Your task to perform on an android device: Show me popular games on the Play Store Image 0: 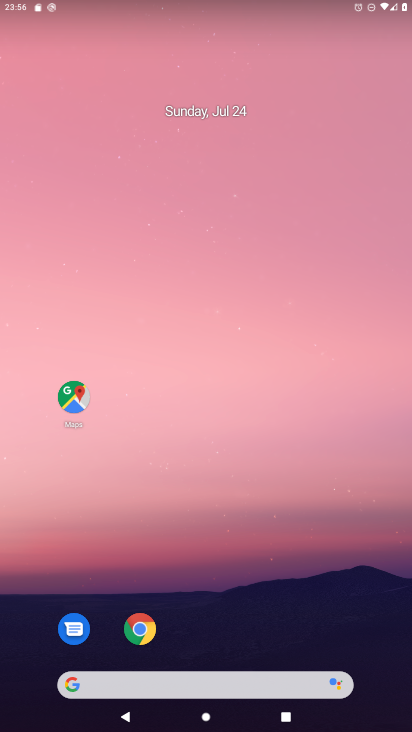
Step 0: drag from (178, 635) to (203, 149)
Your task to perform on an android device: Show me popular games on the Play Store Image 1: 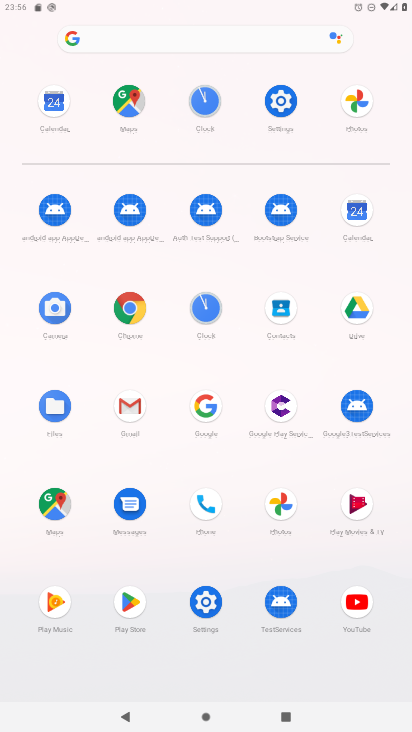
Step 1: drag from (209, 636) to (214, 408)
Your task to perform on an android device: Show me popular games on the Play Store Image 2: 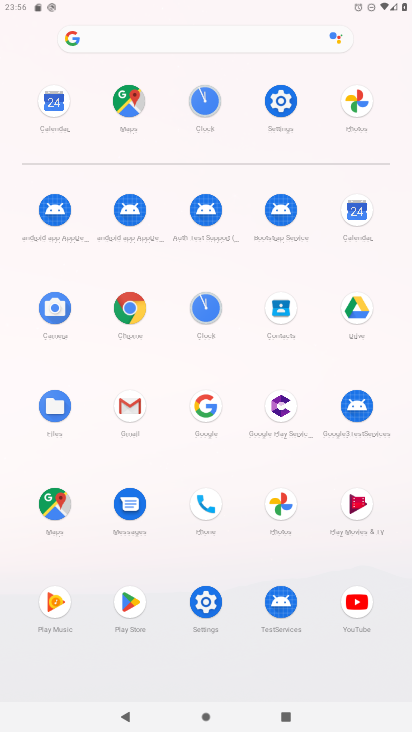
Step 2: click (121, 594)
Your task to perform on an android device: Show me popular games on the Play Store Image 3: 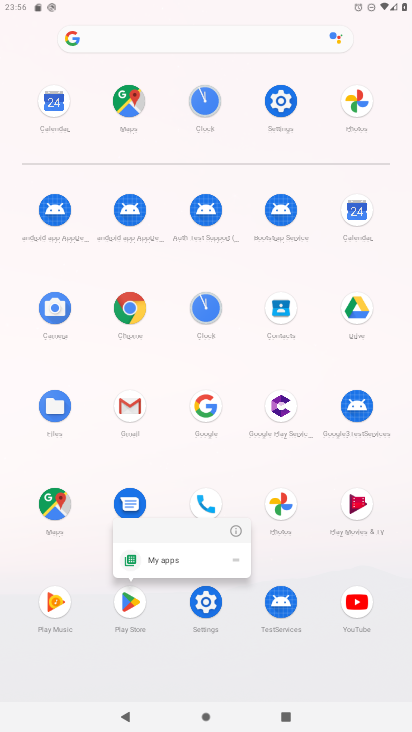
Step 3: click (227, 528)
Your task to perform on an android device: Show me popular games on the Play Store Image 4: 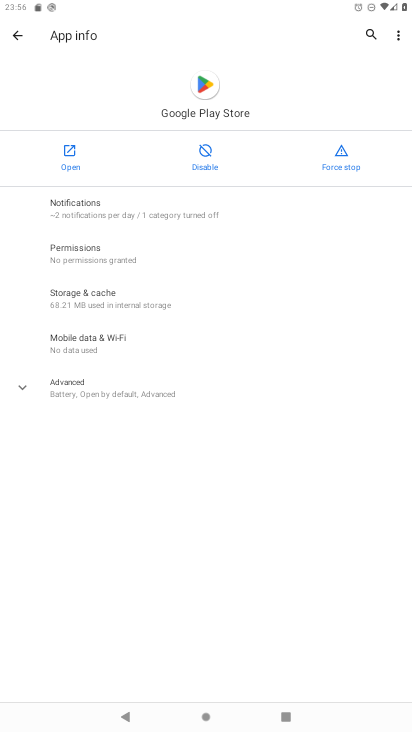
Step 4: click (65, 165)
Your task to perform on an android device: Show me popular games on the Play Store Image 5: 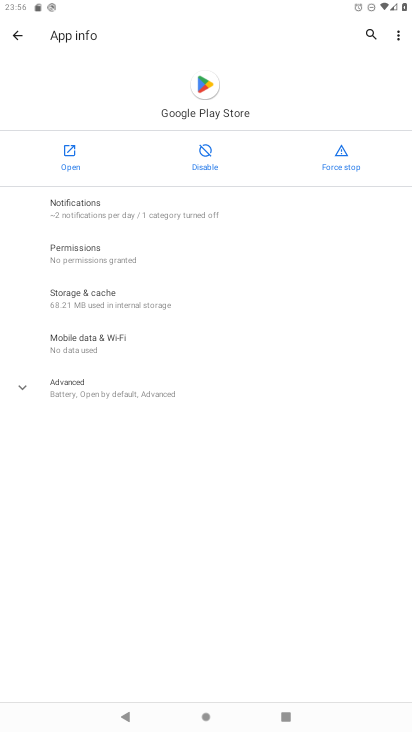
Step 5: click (65, 165)
Your task to perform on an android device: Show me popular games on the Play Store Image 6: 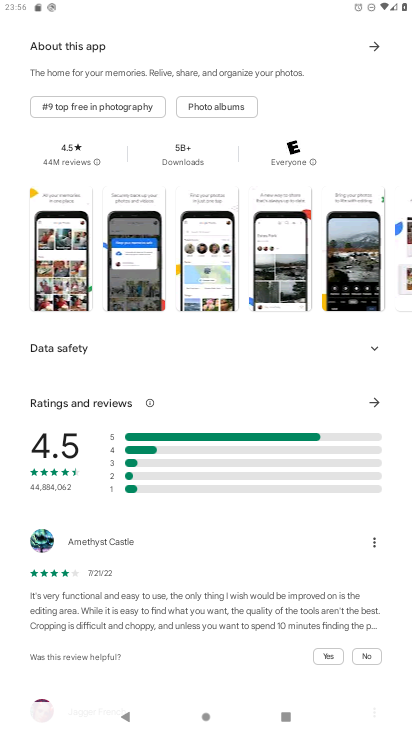
Step 6: drag from (220, 130) to (337, 724)
Your task to perform on an android device: Show me popular games on the Play Store Image 7: 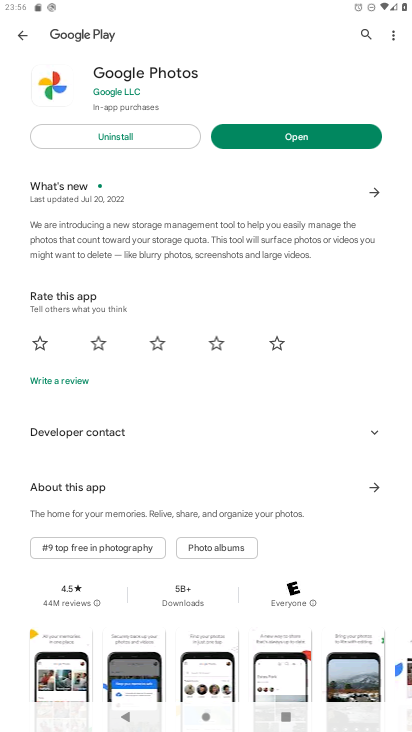
Step 7: click (21, 36)
Your task to perform on an android device: Show me popular games on the Play Store Image 8: 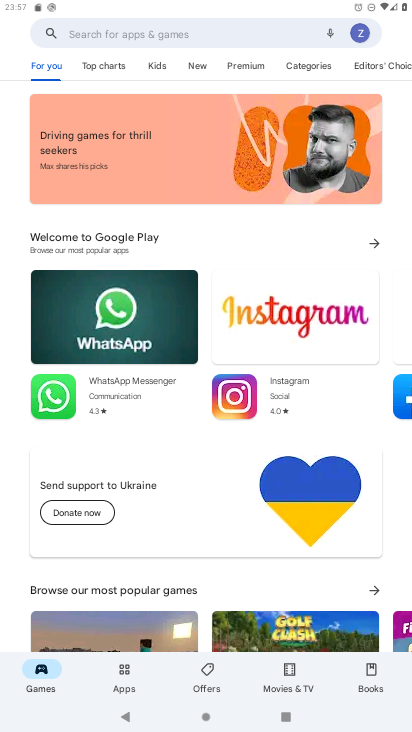
Step 8: click (121, 673)
Your task to perform on an android device: Show me popular games on the Play Store Image 9: 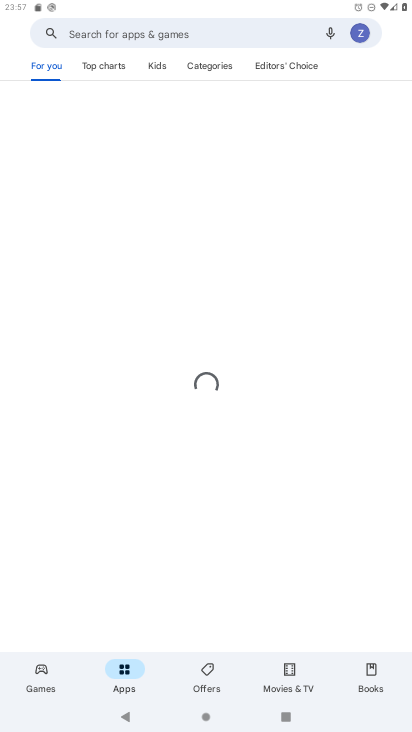
Step 9: drag from (134, 629) to (190, 242)
Your task to perform on an android device: Show me popular games on the Play Store Image 10: 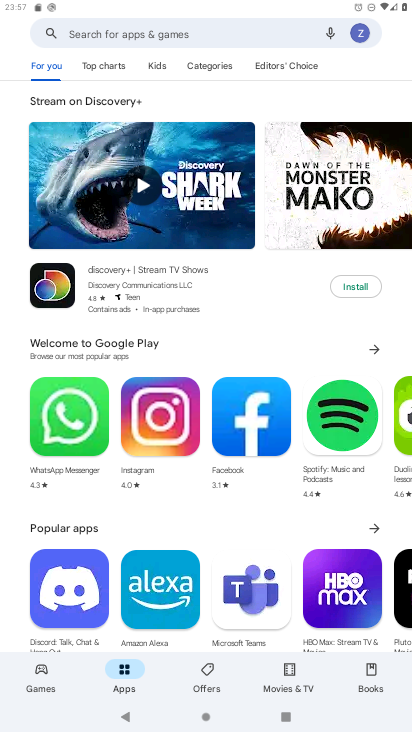
Step 10: drag from (199, 551) to (248, 130)
Your task to perform on an android device: Show me popular games on the Play Store Image 11: 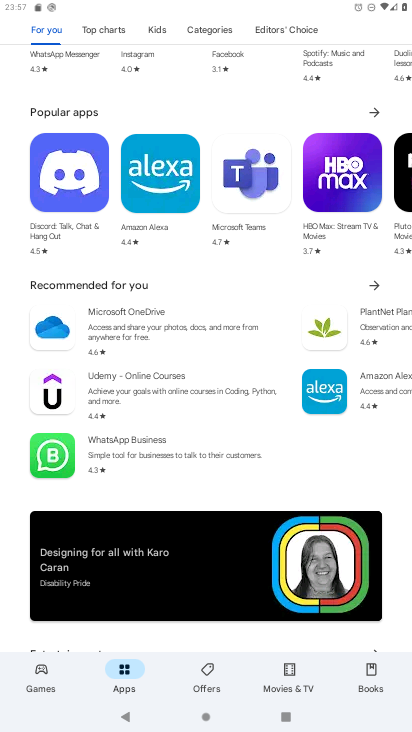
Step 11: drag from (208, 522) to (236, 236)
Your task to perform on an android device: Show me popular games on the Play Store Image 12: 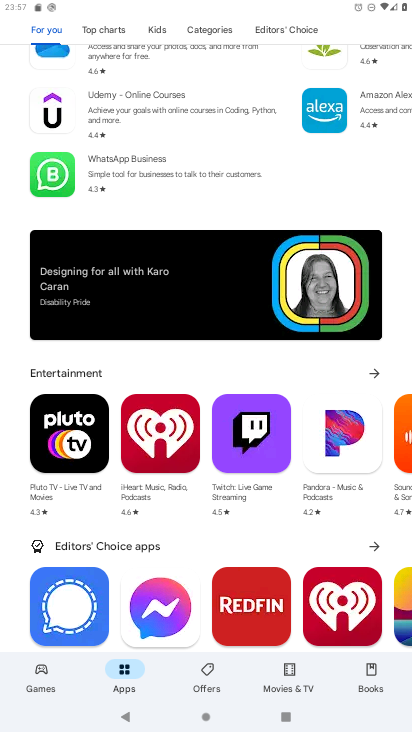
Step 12: drag from (209, 505) to (233, 265)
Your task to perform on an android device: Show me popular games on the Play Store Image 13: 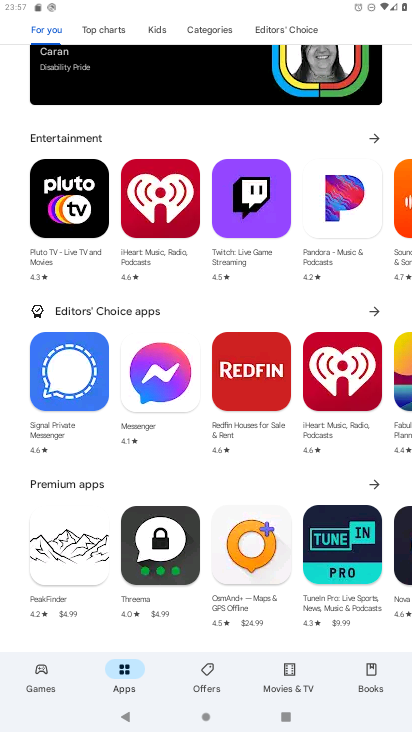
Step 13: drag from (205, 581) to (207, 154)
Your task to perform on an android device: Show me popular games on the Play Store Image 14: 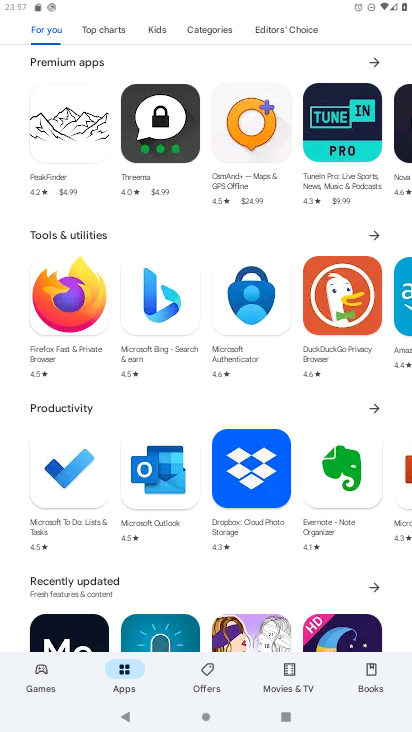
Step 14: click (251, 121)
Your task to perform on an android device: Show me popular games on the Play Store Image 15: 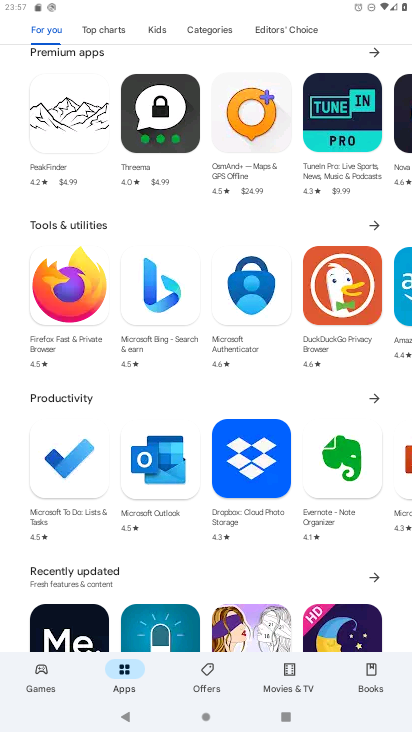
Step 15: drag from (199, 513) to (210, 179)
Your task to perform on an android device: Show me popular games on the Play Store Image 16: 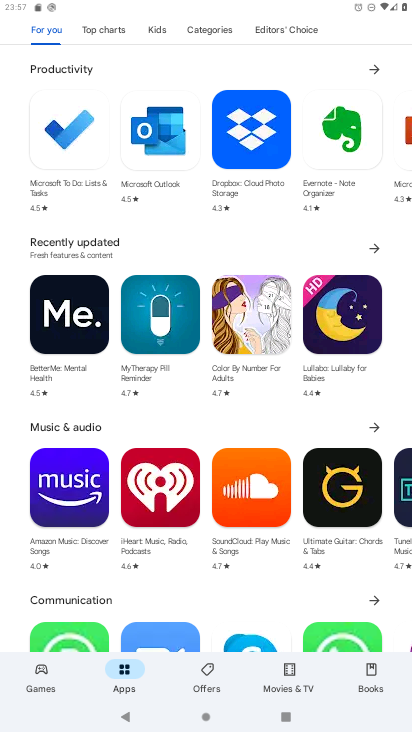
Step 16: drag from (206, 594) to (237, 204)
Your task to perform on an android device: Show me popular games on the Play Store Image 17: 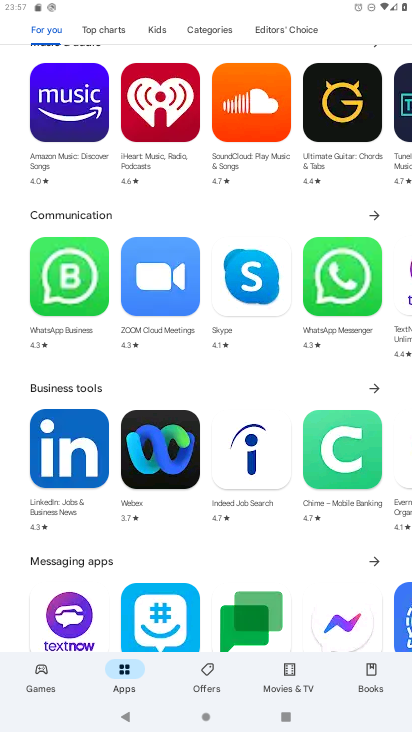
Step 17: drag from (209, 518) to (222, 208)
Your task to perform on an android device: Show me popular games on the Play Store Image 18: 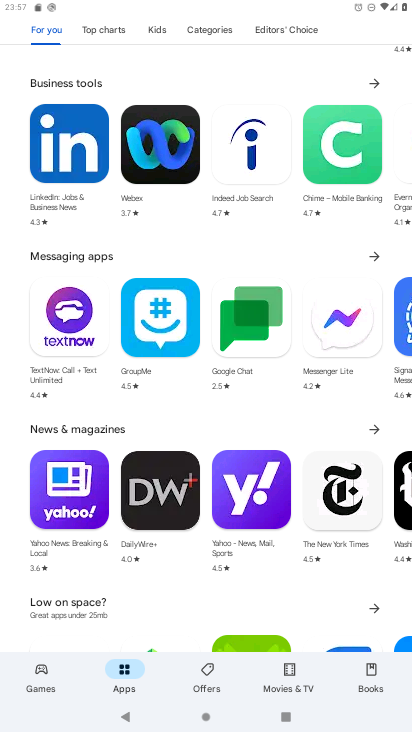
Step 18: drag from (191, 591) to (200, 358)
Your task to perform on an android device: Show me popular games on the Play Store Image 19: 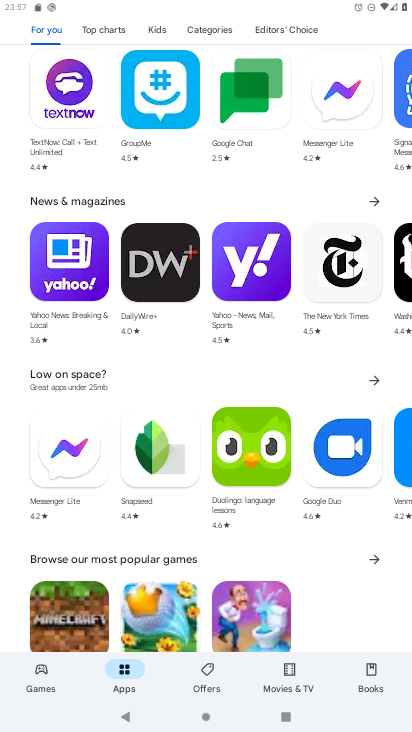
Step 19: drag from (222, 586) to (238, 302)
Your task to perform on an android device: Show me popular games on the Play Store Image 20: 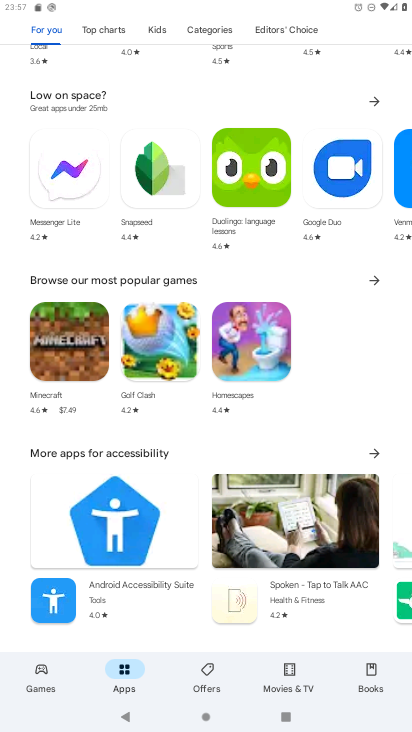
Step 20: drag from (220, 261) to (406, 704)
Your task to perform on an android device: Show me popular games on the Play Store Image 21: 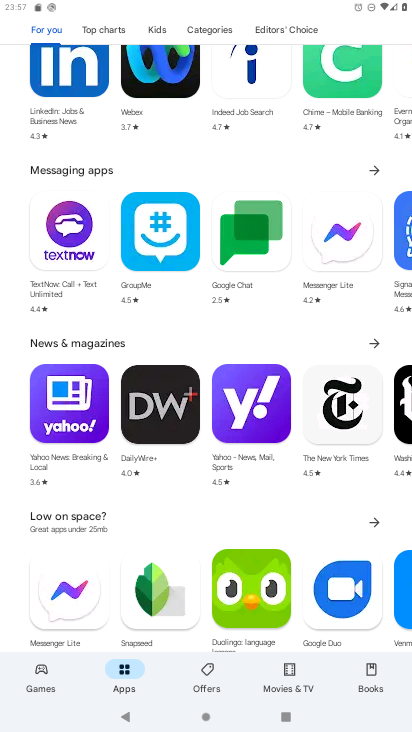
Step 21: drag from (191, 178) to (328, 731)
Your task to perform on an android device: Show me popular games on the Play Store Image 22: 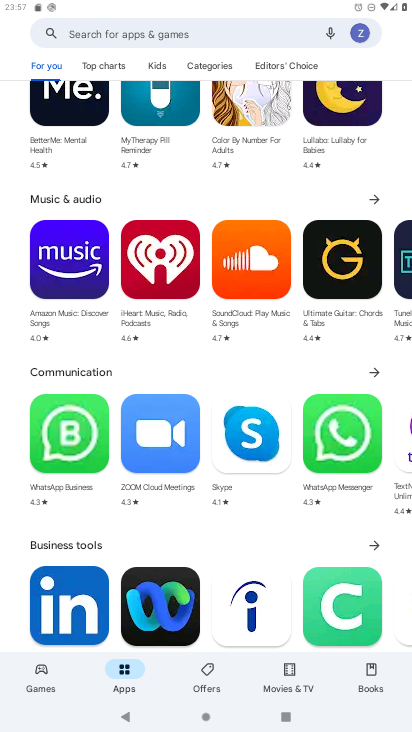
Step 22: drag from (200, 177) to (265, 730)
Your task to perform on an android device: Show me popular games on the Play Store Image 23: 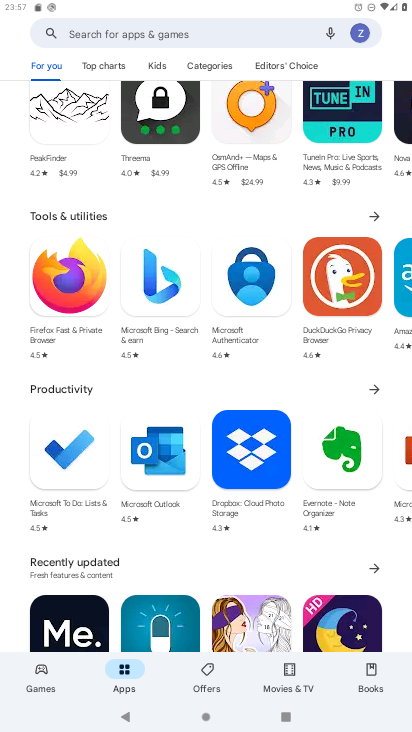
Step 23: drag from (201, 224) to (274, 727)
Your task to perform on an android device: Show me popular games on the Play Store Image 24: 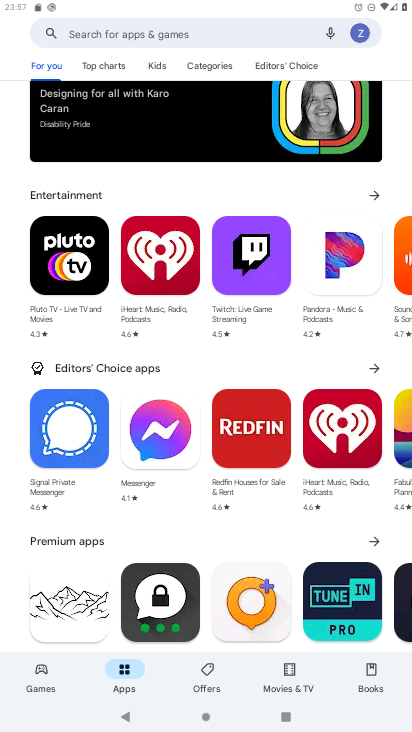
Step 24: drag from (192, 207) to (229, 623)
Your task to perform on an android device: Show me popular games on the Play Store Image 25: 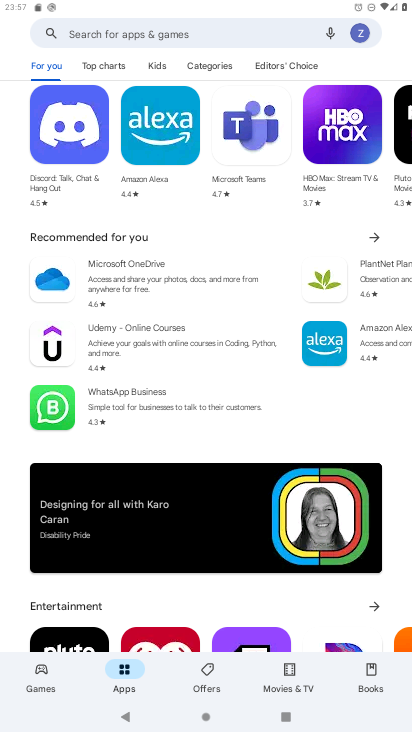
Step 25: drag from (229, 216) to (234, 651)
Your task to perform on an android device: Show me popular games on the Play Store Image 26: 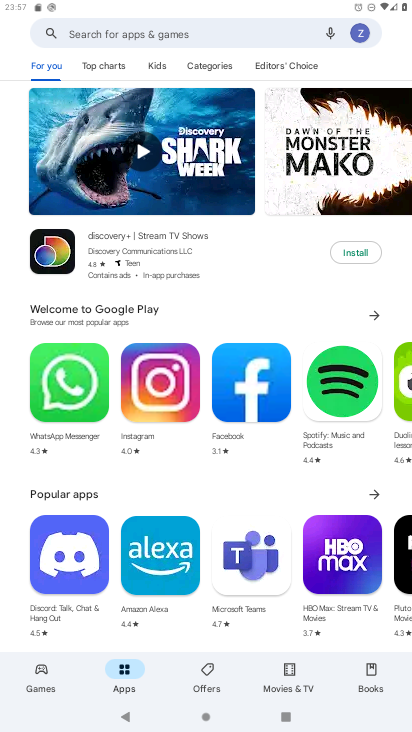
Step 26: drag from (219, 330) to (353, 252)
Your task to perform on an android device: Show me popular games on the Play Store Image 27: 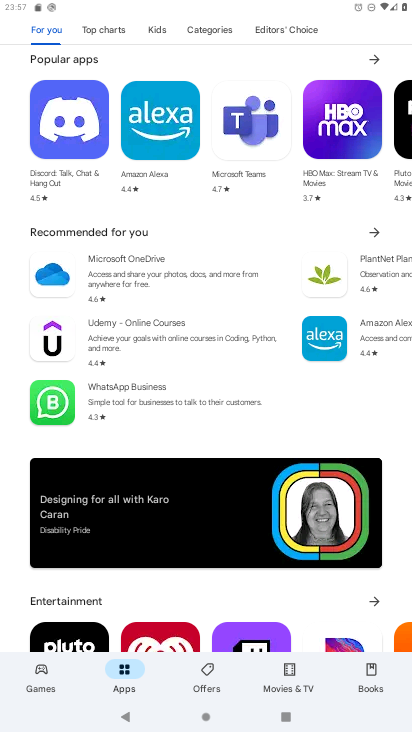
Step 27: drag from (250, 365) to (298, 674)
Your task to perform on an android device: Show me popular games on the Play Store Image 28: 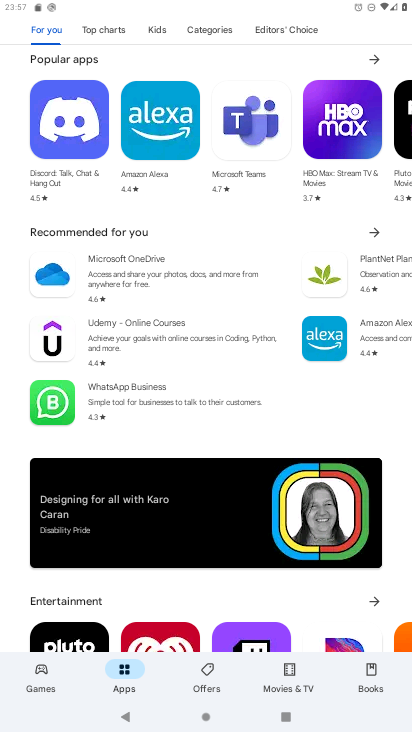
Step 28: drag from (204, 274) to (290, 678)
Your task to perform on an android device: Show me popular games on the Play Store Image 29: 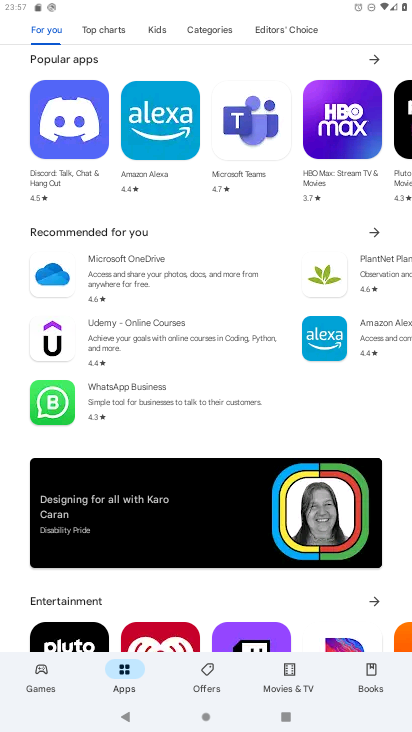
Step 29: drag from (224, 159) to (329, 726)
Your task to perform on an android device: Show me popular games on the Play Store Image 30: 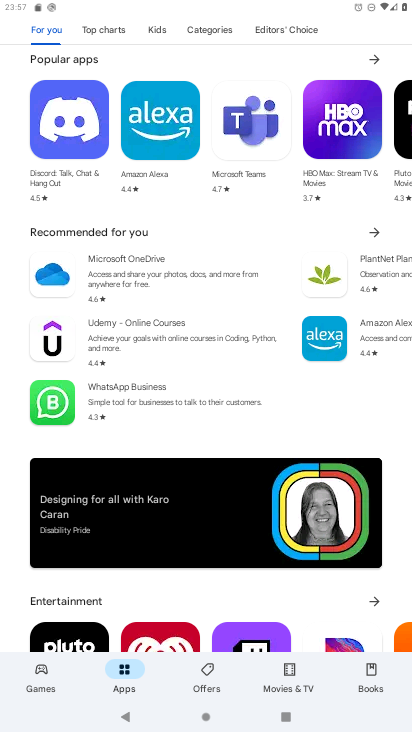
Step 30: drag from (212, 345) to (242, 727)
Your task to perform on an android device: Show me popular games on the Play Store Image 31: 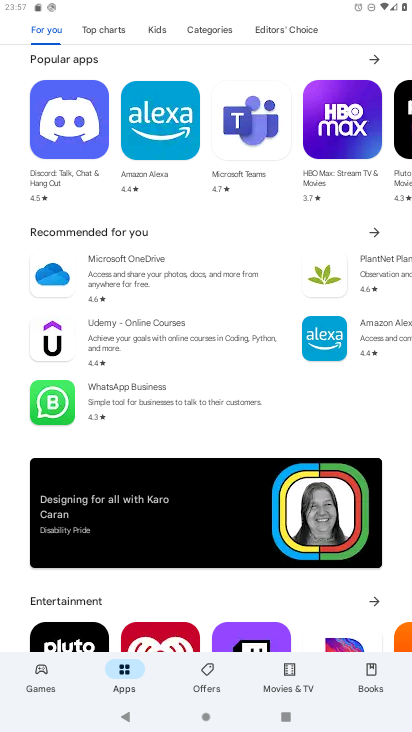
Step 31: drag from (212, 67) to (211, 696)
Your task to perform on an android device: Show me popular games on the Play Store Image 32: 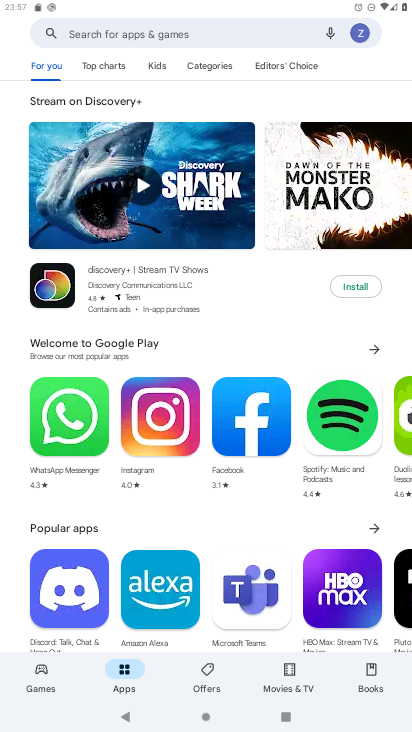
Step 32: click (136, 35)
Your task to perform on an android device: Show me popular games on the Play Store Image 33: 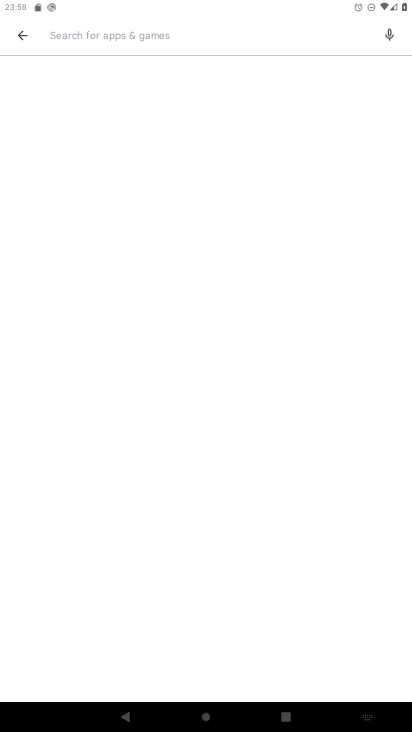
Step 33: click (20, 30)
Your task to perform on an android device: Show me popular games on the Play Store Image 34: 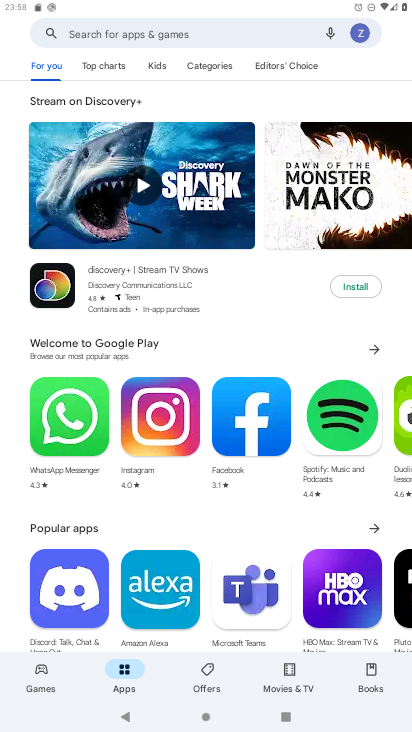
Step 34: task complete